Your task to perform on an android device: When is my next appointment? Image 0: 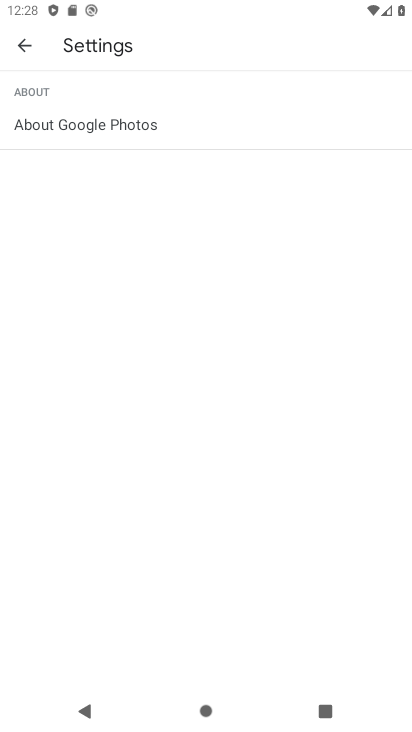
Step 0: press home button
Your task to perform on an android device: When is my next appointment? Image 1: 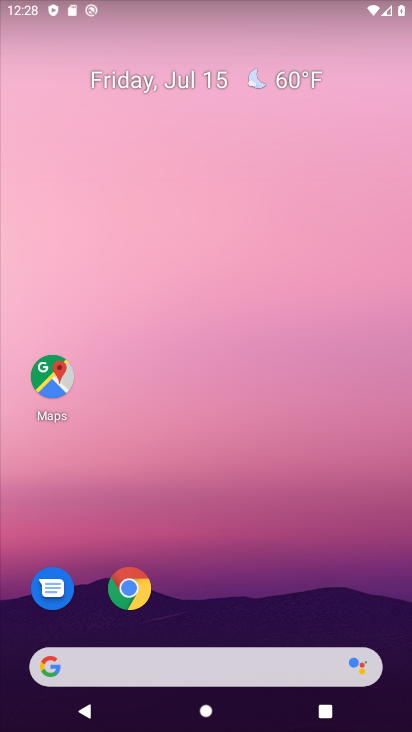
Step 1: drag from (268, 594) to (323, 235)
Your task to perform on an android device: When is my next appointment? Image 2: 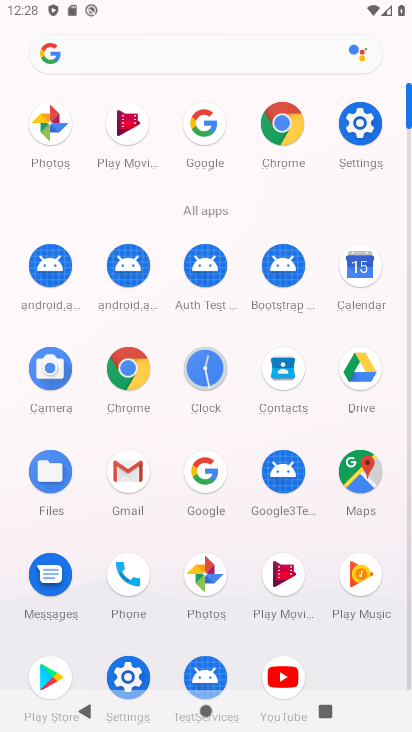
Step 2: click (354, 282)
Your task to perform on an android device: When is my next appointment? Image 3: 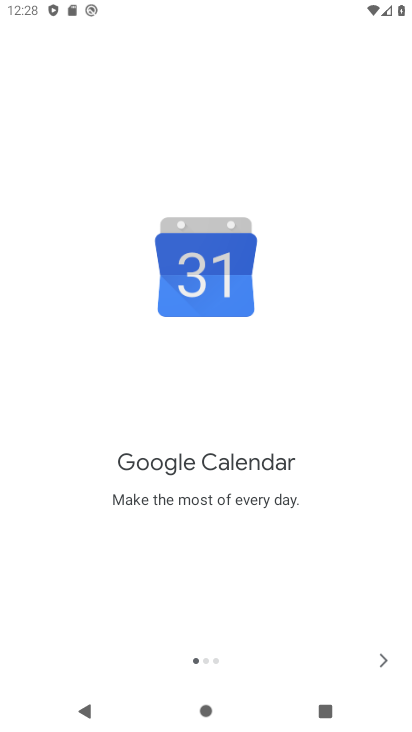
Step 3: click (383, 664)
Your task to perform on an android device: When is my next appointment? Image 4: 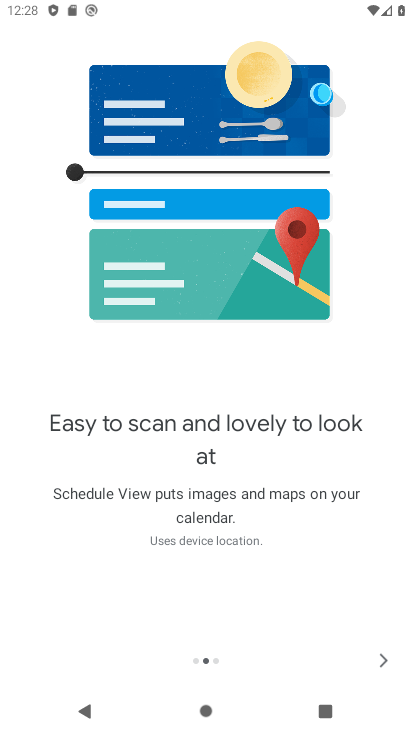
Step 4: click (383, 664)
Your task to perform on an android device: When is my next appointment? Image 5: 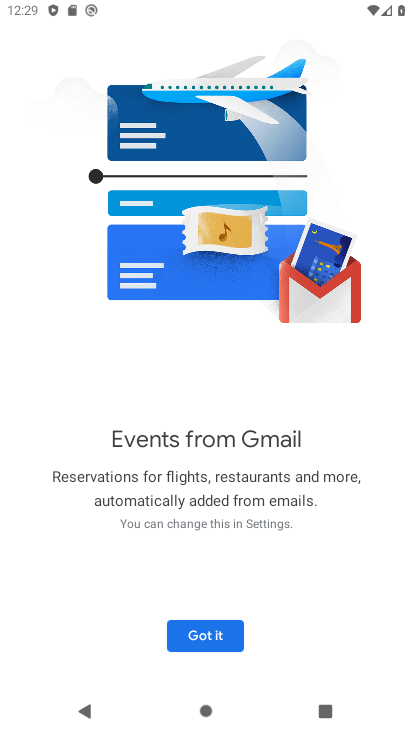
Step 5: click (214, 634)
Your task to perform on an android device: When is my next appointment? Image 6: 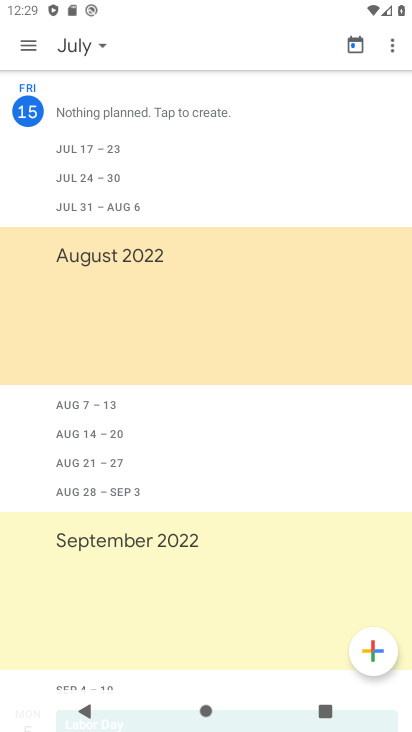
Step 6: click (80, 46)
Your task to perform on an android device: When is my next appointment? Image 7: 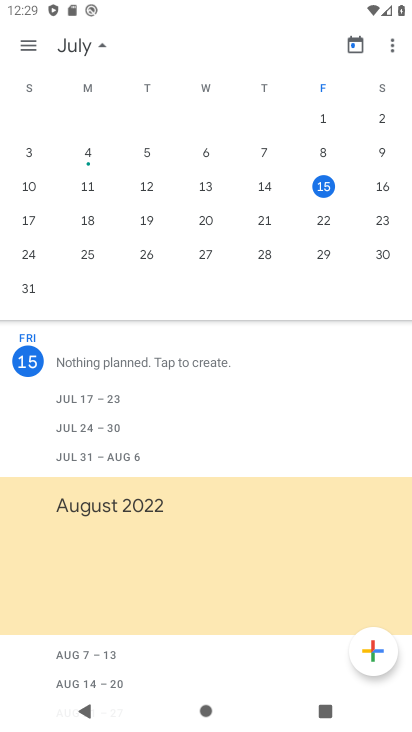
Step 7: click (315, 186)
Your task to perform on an android device: When is my next appointment? Image 8: 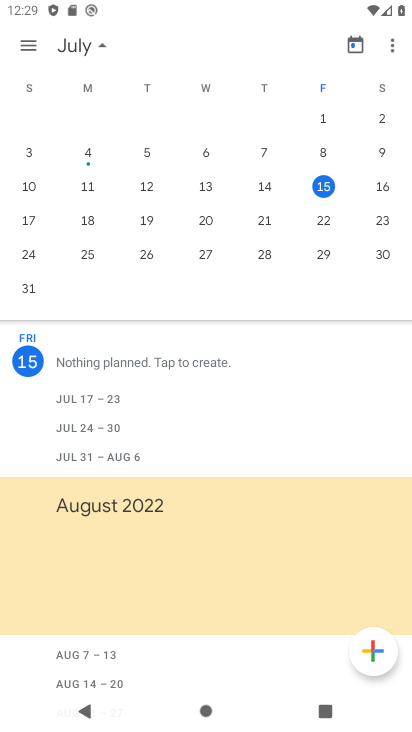
Step 8: task complete